Your task to perform on an android device: Open Chrome and go to settings Image 0: 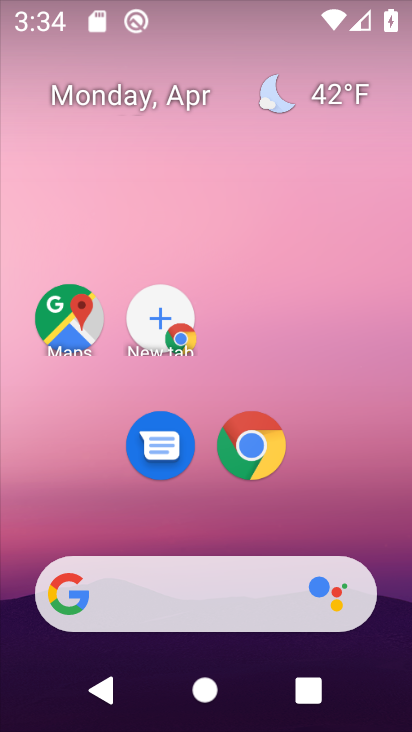
Step 0: click (260, 439)
Your task to perform on an android device: Open Chrome and go to settings Image 1: 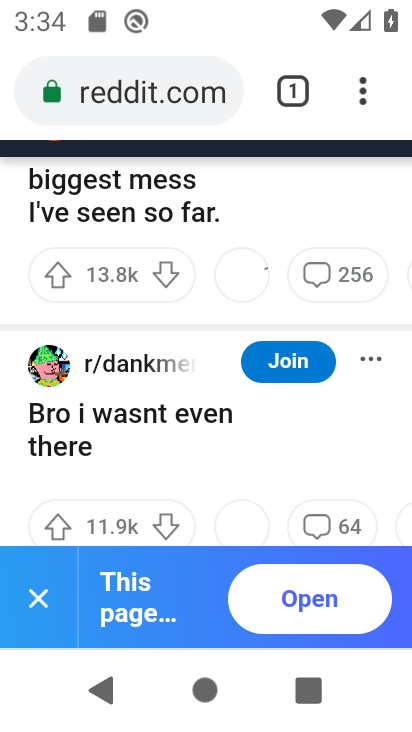
Step 1: click (361, 94)
Your task to perform on an android device: Open Chrome and go to settings Image 2: 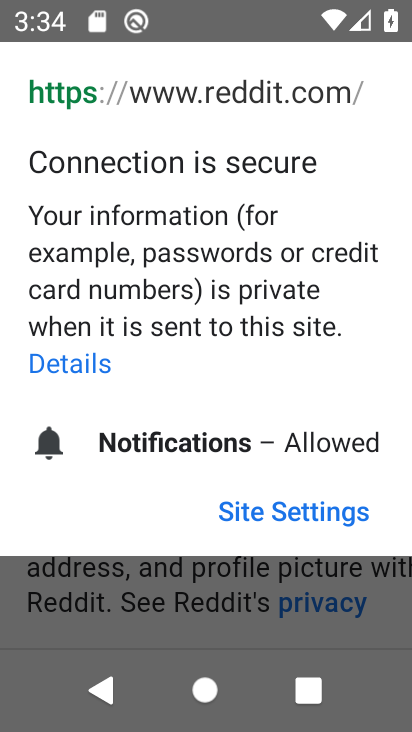
Step 2: click (283, 593)
Your task to perform on an android device: Open Chrome and go to settings Image 3: 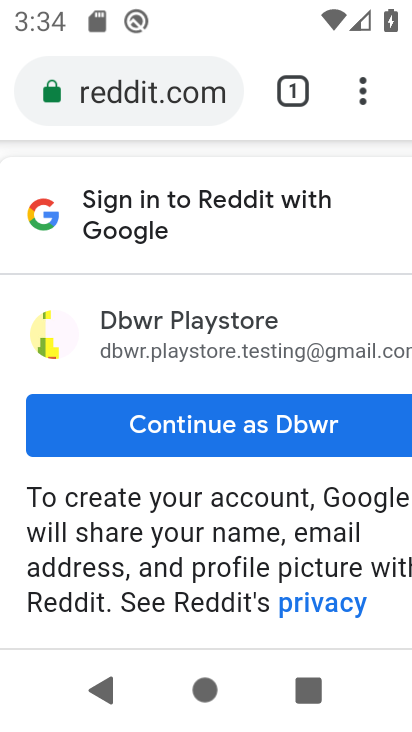
Step 3: click (354, 92)
Your task to perform on an android device: Open Chrome and go to settings Image 4: 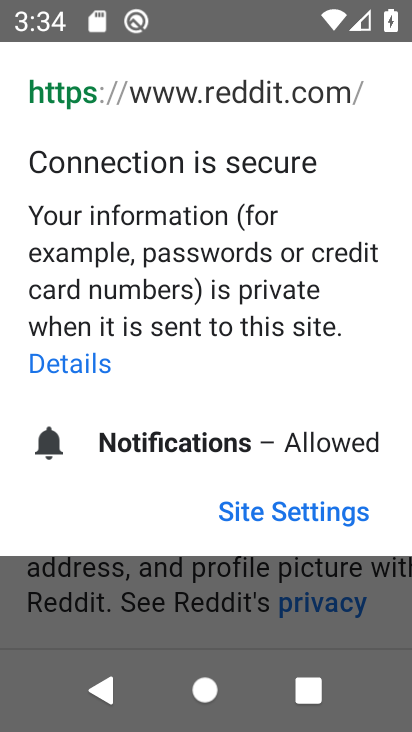
Step 4: click (285, 616)
Your task to perform on an android device: Open Chrome and go to settings Image 5: 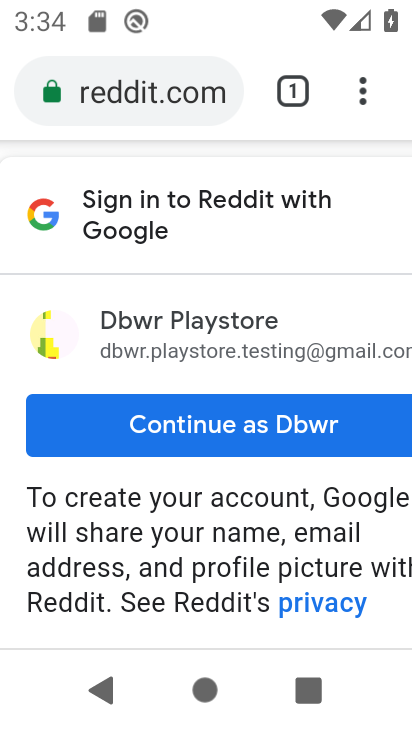
Step 5: click (362, 85)
Your task to perform on an android device: Open Chrome and go to settings Image 6: 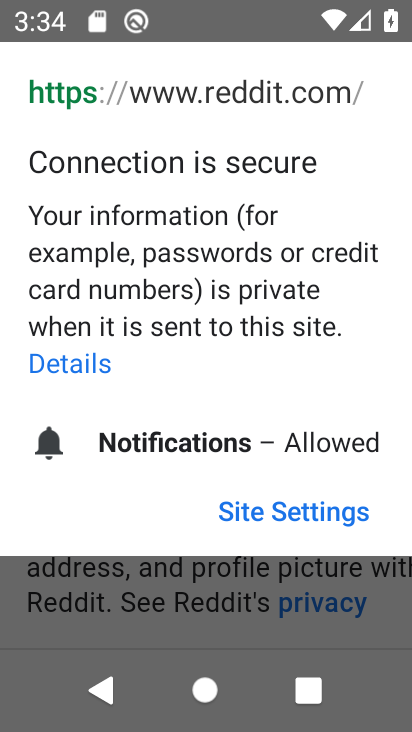
Step 6: click (223, 596)
Your task to perform on an android device: Open Chrome and go to settings Image 7: 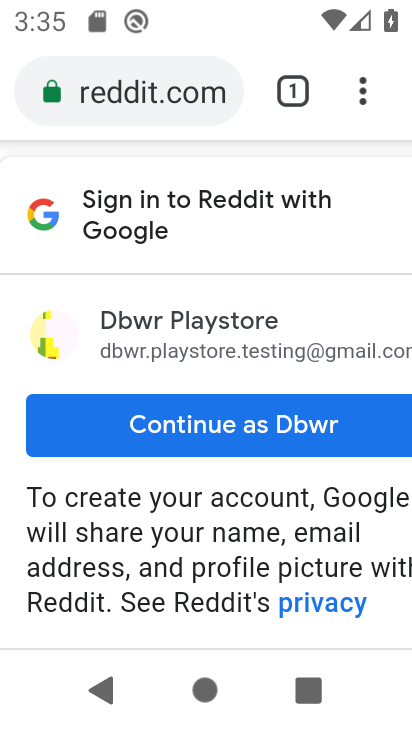
Step 7: click (367, 87)
Your task to perform on an android device: Open Chrome and go to settings Image 8: 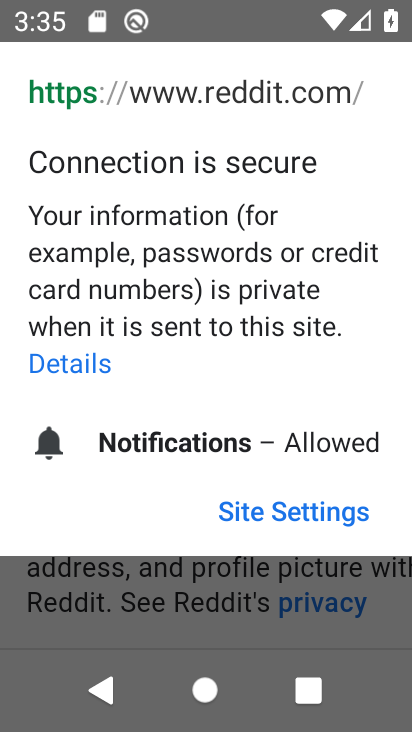
Step 8: click (297, 610)
Your task to perform on an android device: Open Chrome and go to settings Image 9: 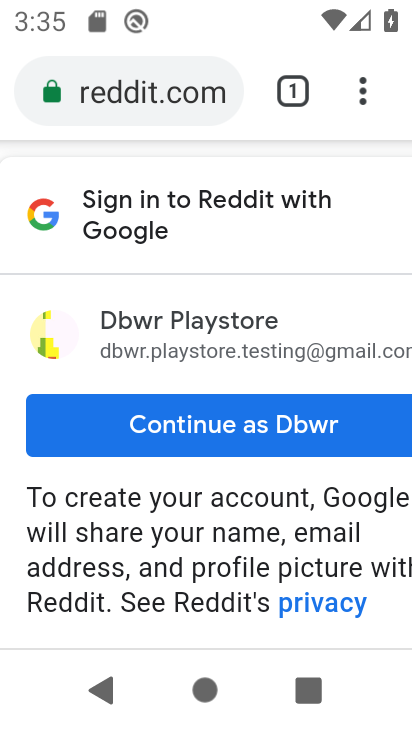
Step 9: press back button
Your task to perform on an android device: Open Chrome and go to settings Image 10: 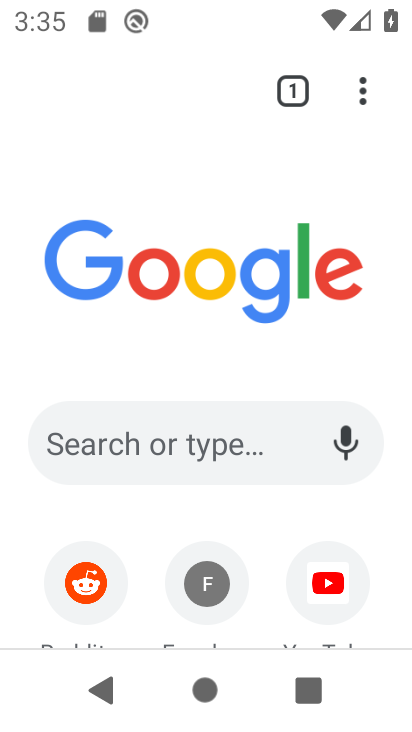
Step 10: click (365, 97)
Your task to perform on an android device: Open Chrome and go to settings Image 11: 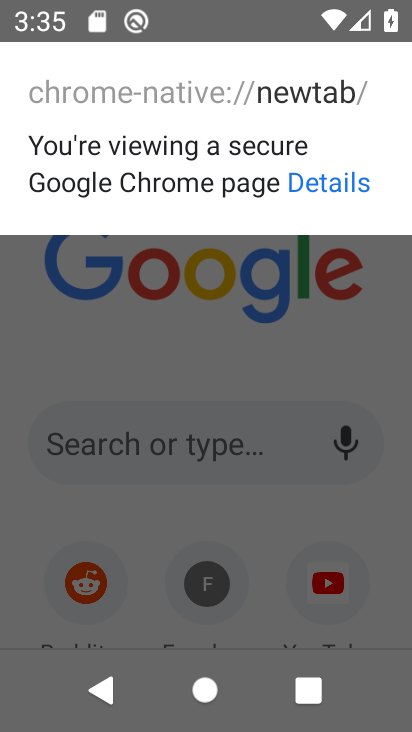
Step 11: click (241, 310)
Your task to perform on an android device: Open Chrome and go to settings Image 12: 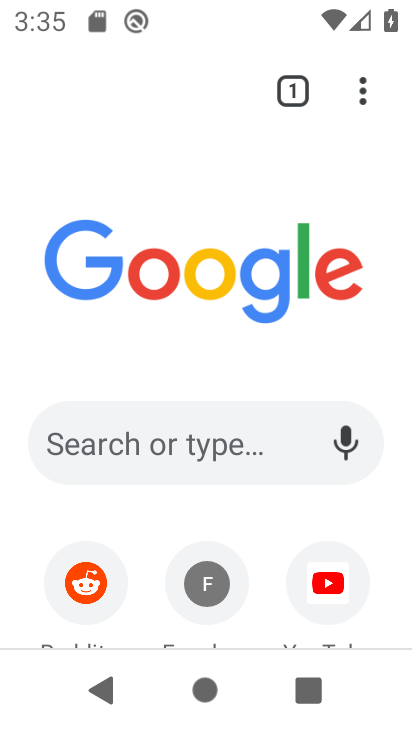
Step 12: click (362, 85)
Your task to perform on an android device: Open Chrome and go to settings Image 13: 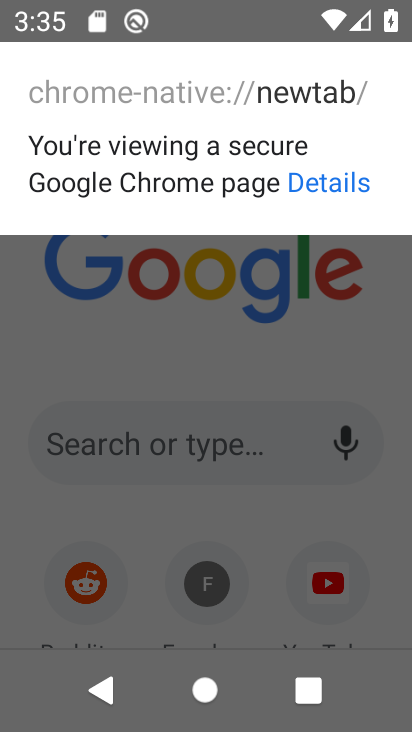
Step 13: click (220, 325)
Your task to perform on an android device: Open Chrome and go to settings Image 14: 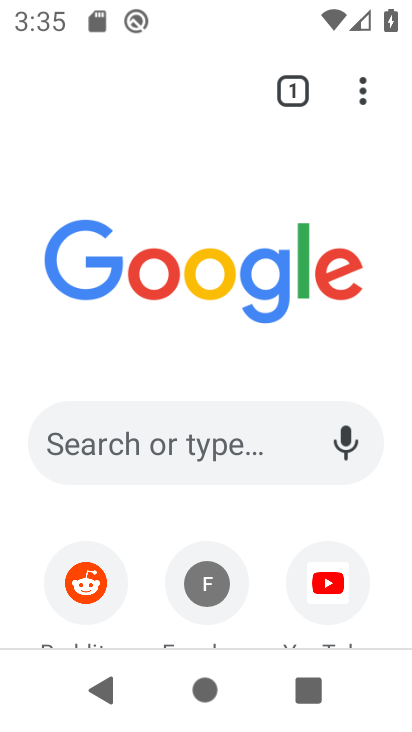
Step 14: click (362, 87)
Your task to perform on an android device: Open Chrome and go to settings Image 15: 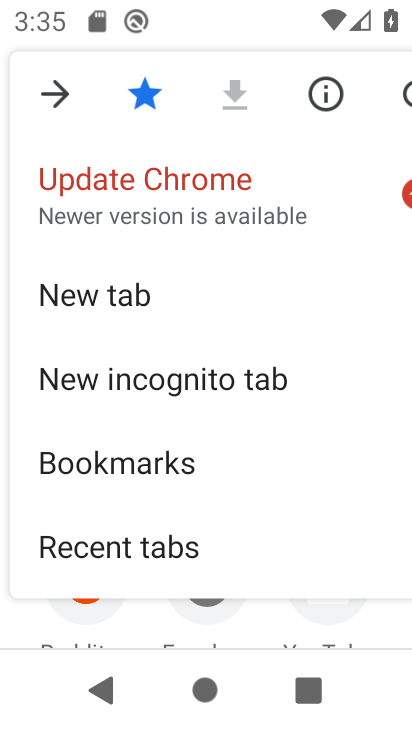
Step 15: drag from (202, 492) to (232, 99)
Your task to perform on an android device: Open Chrome and go to settings Image 16: 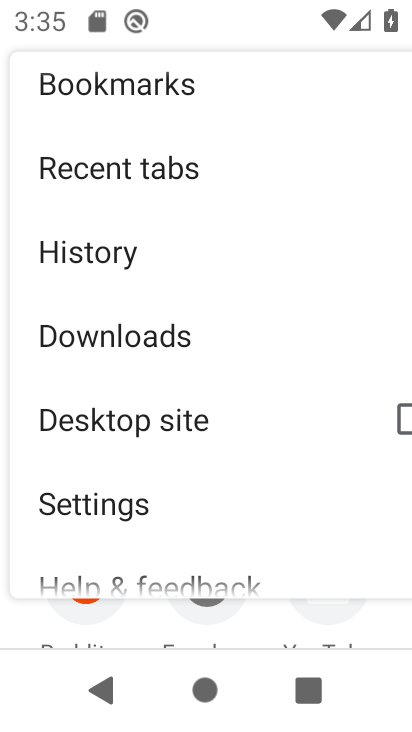
Step 16: click (163, 506)
Your task to perform on an android device: Open Chrome and go to settings Image 17: 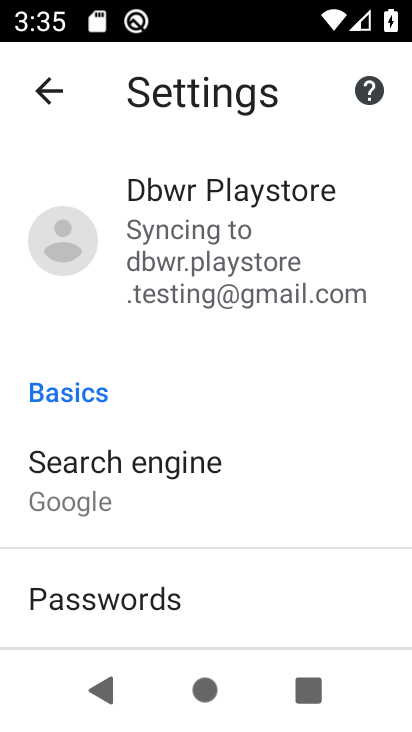
Step 17: task complete